Your task to perform on an android device: Open Google Maps and go to "Timeline" Image 0: 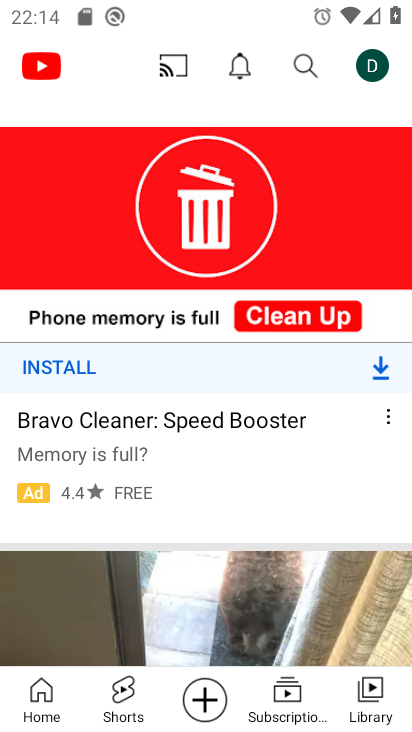
Step 0: press home button
Your task to perform on an android device: Open Google Maps and go to "Timeline" Image 1: 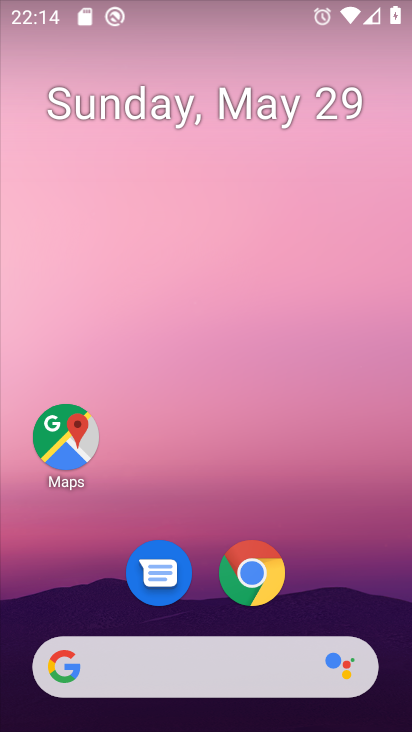
Step 1: click (53, 437)
Your task to perform on an android device: Open Google Maps and go to "Timeline" Image 2: 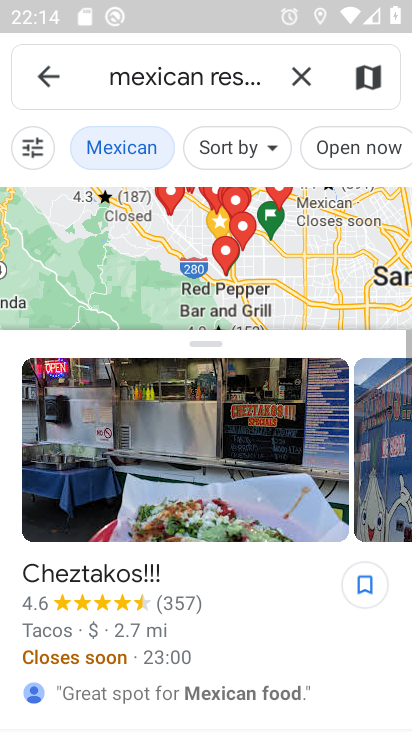
Step 2: click (50, 74)
Your task to perform on an android device: Open Google Maps and go to "Timeline" Image 3: 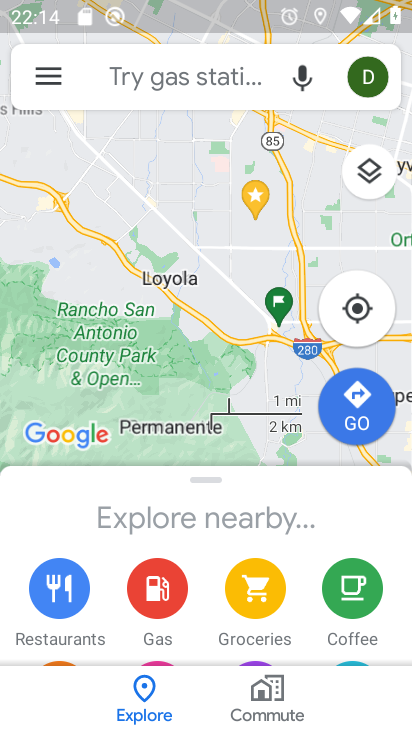
Step 3: click (50, 74)
Your task to perform on an android device: Open Google Maps and go to "Timeline" Image 4: 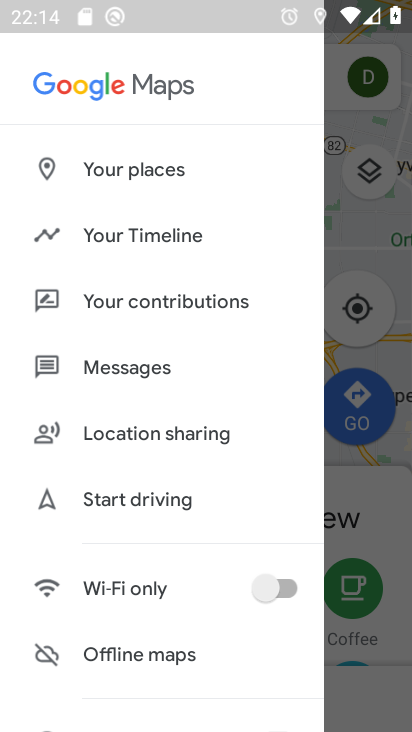
Step 4: click (137, 230)
Your task to perform on an android device: Open Google Maps and go to "Timeline" Image 5: 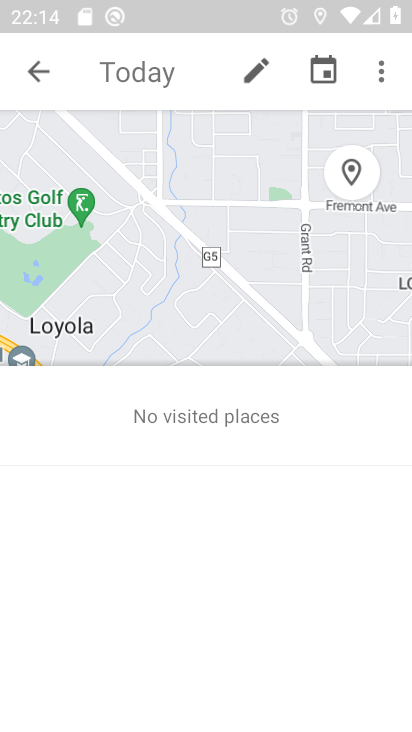
Step 5: task complete